Your task to perform on an android device: Clear all items from cart on costco. Add "razer deathadder" to the cart on costco, then select checkout. Image 0: 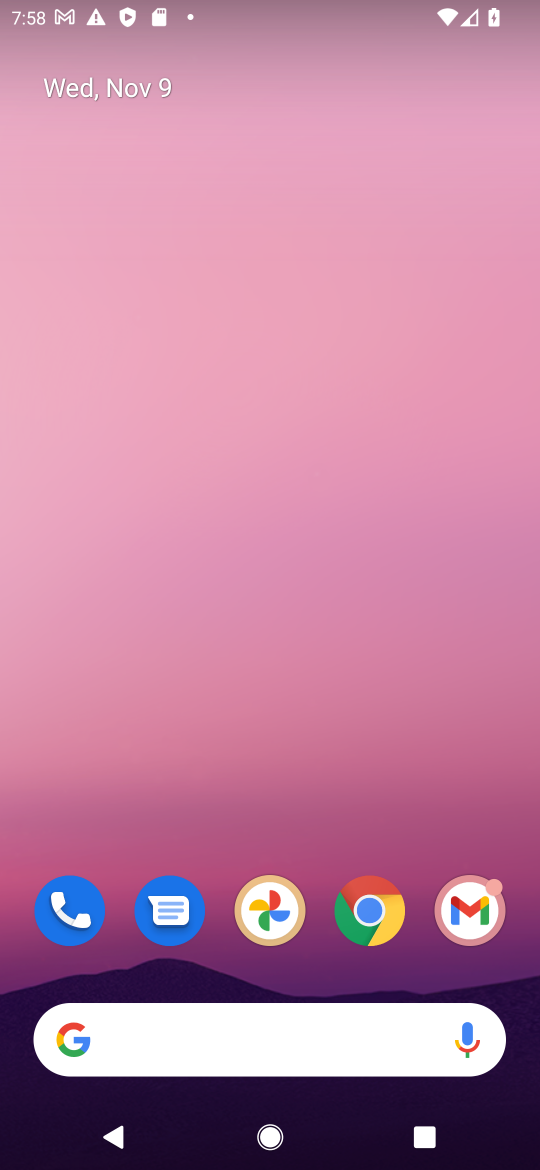
Step 0: click (365, 926)
Your task to perform on an android device: Clear all items from cart on costco. Add "razer deathadder" to the cart on costco, then select checkout. Image 1: 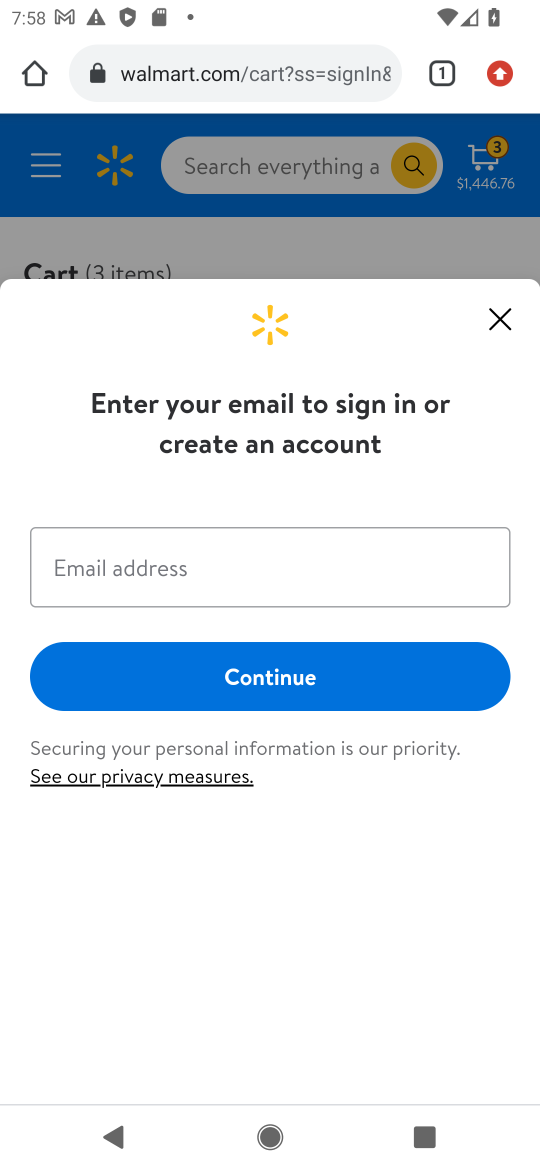
Step 1: click (225, 80)
Your task to perform on an android device: Clear all items from cart on costco. Add "razer deathadder" to the cart on costco, then select checkout. Image 2: 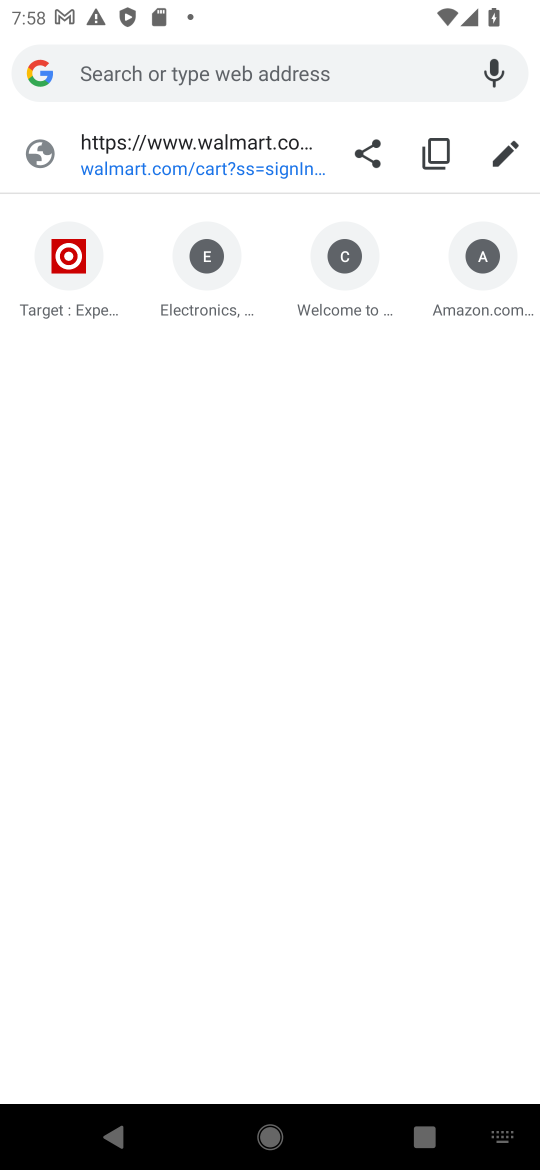
Step 2: type "costco.com"
Your task to perform on an android device: Clear all items from cart on costco. Add "razer deathadder" to the cart on costco, then select checkout. Image 3: 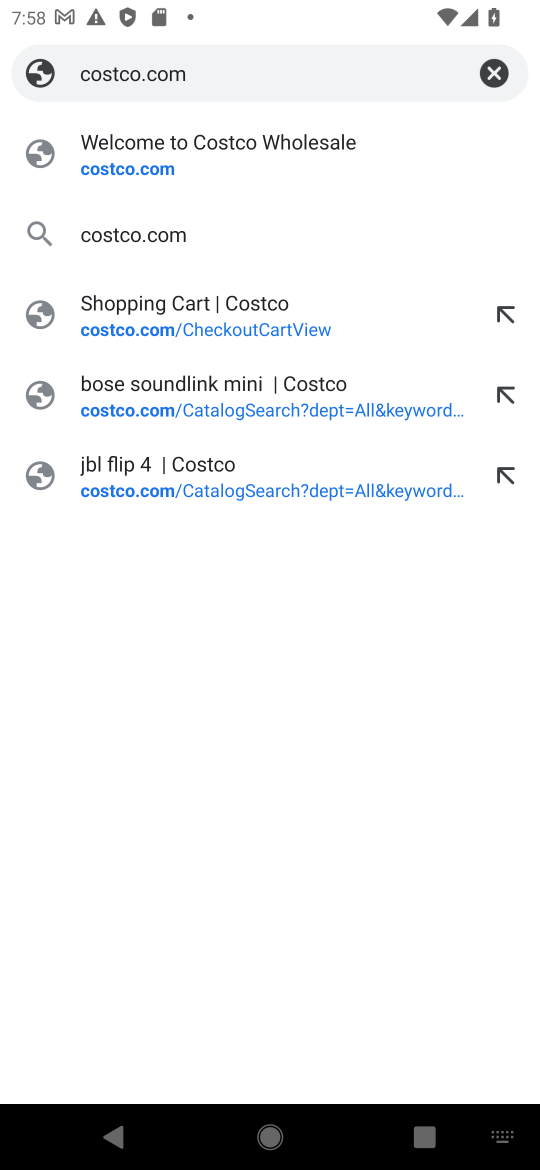
Step 3: click (153, 169)
Your task to perform on an android device: Clear all items from cart on costco. Add "razer deathadder" to the cart on costco, then select checkout. Image 4: 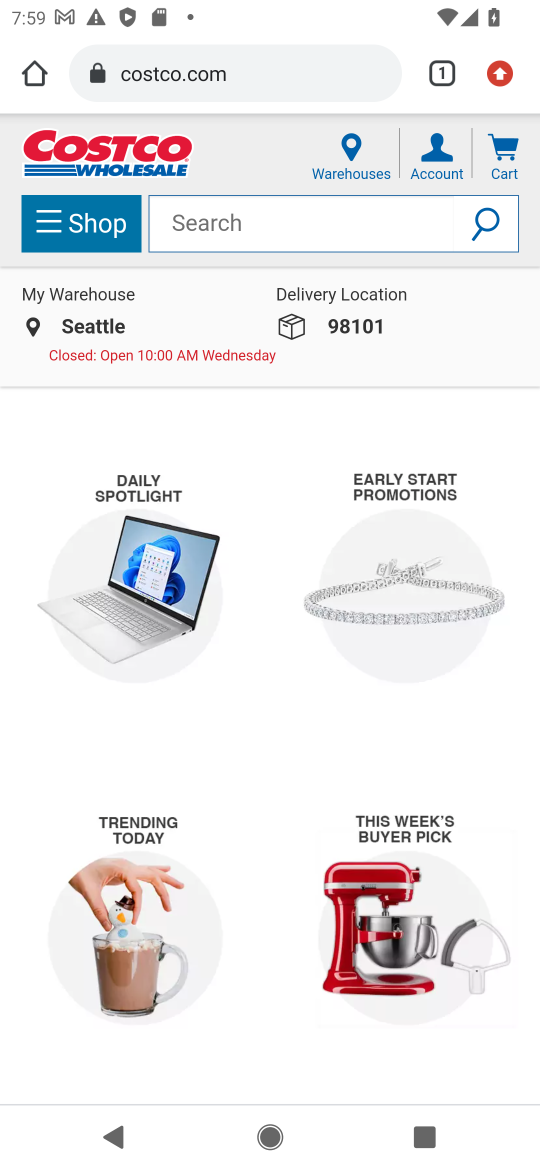
Step 4: click (492, 149)
Your task to perform on an android device: Clear all items from cart on costco. Add "razer deathadder" to the cart on costco, then select checkout. Image 5: 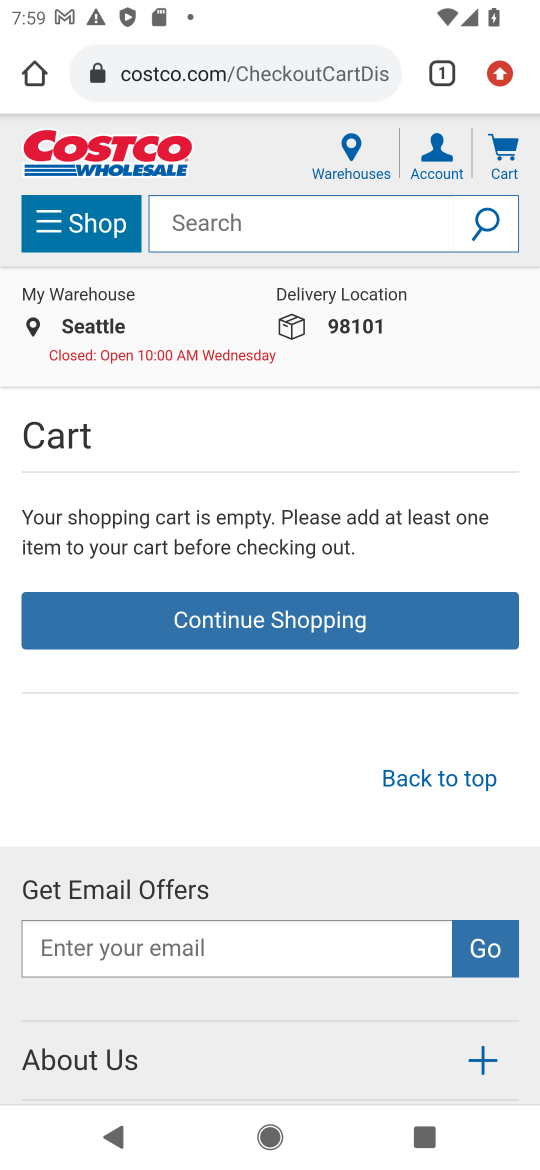
Step 5: click (203, 223)
Your task to perform on an android device: Clear all items from cart on costco. Add "razer deathadder" to the cart on costco, then select checkout. Image 6: 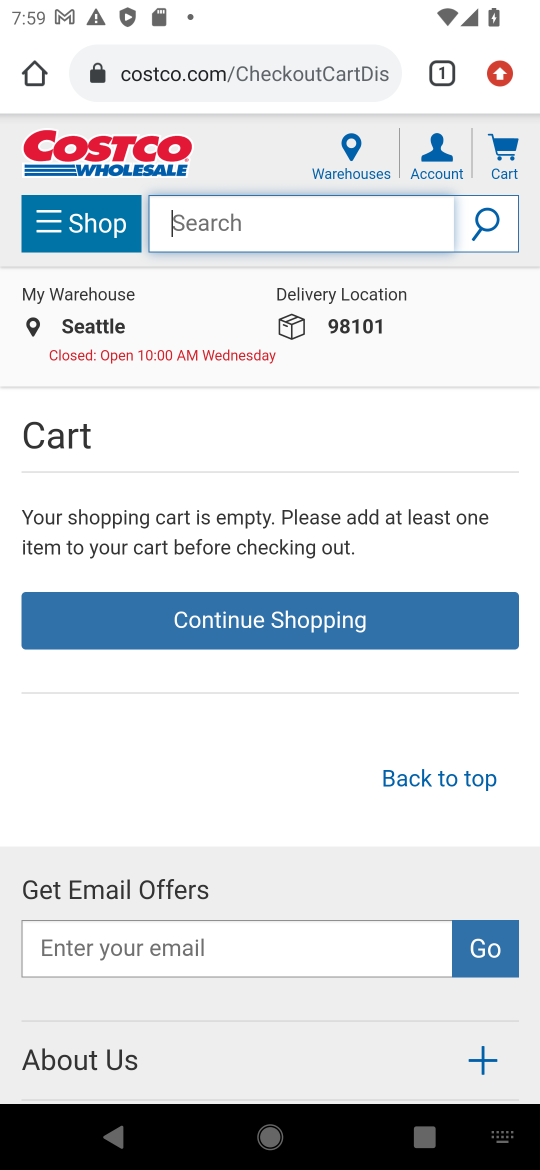
Step 6: type "razer deathadder"
Your task to perform on an android device: Clear all items from cart on costco. Add "razer deathadder" to the cart on costco, then select checkout. Image 7: 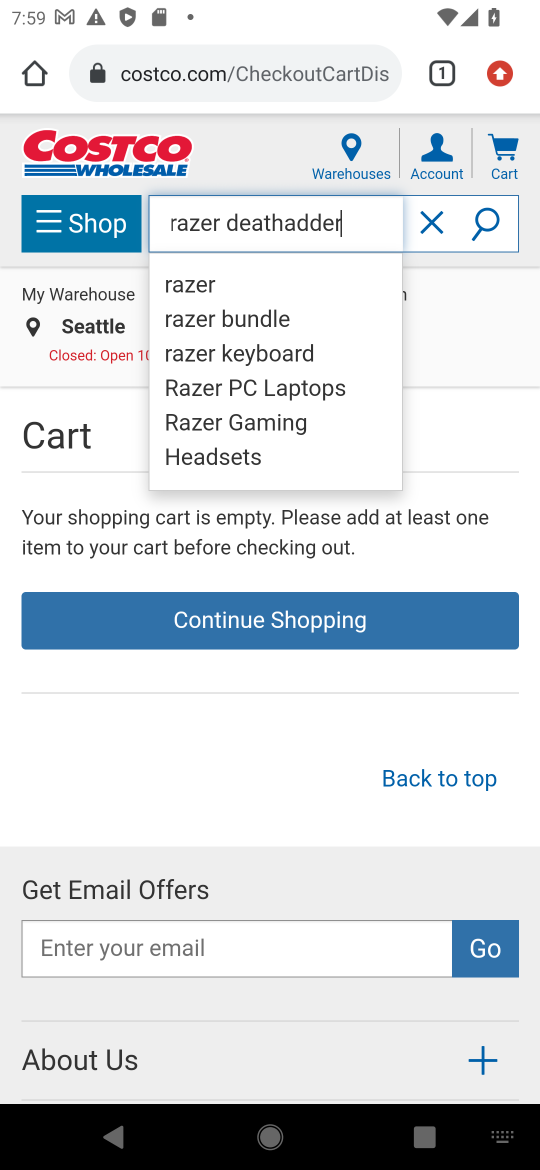
Step 7: click (490, 224)
Your task to perform on an android device: Clear all items from cart on costco. Add "razer deathadder" to the cart on costco, then select checkout. Image 8: 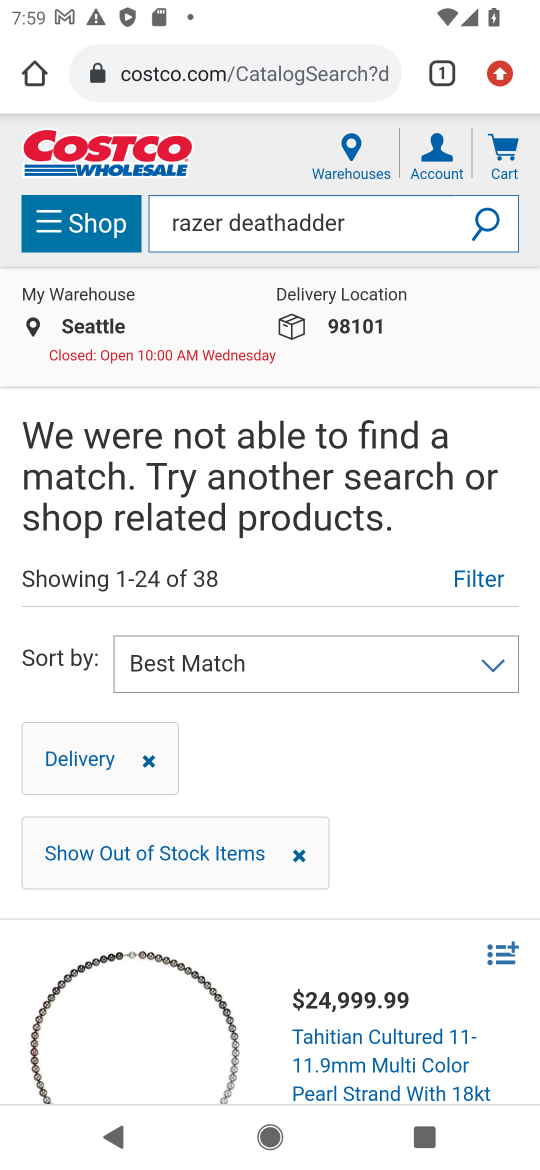
Step 8: task complete